Your task to perform on an android device: turn pop-ups on in chrome Image 0: 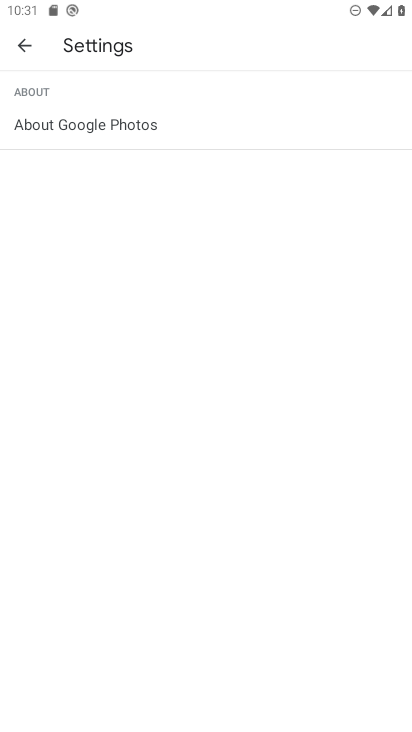
Step 0: press back button
Your task to perform on an android device: turn pop-ups on in chrome Image 1: 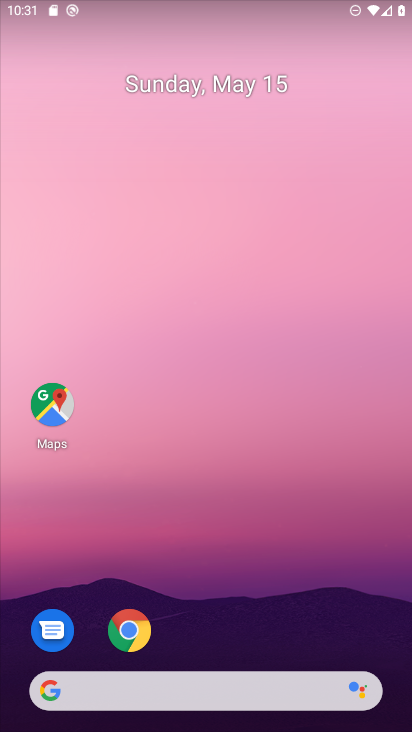
Step 1: click (137, 618)
Your task to perform on an android device: turn pop-ups on in chrome Image 2: 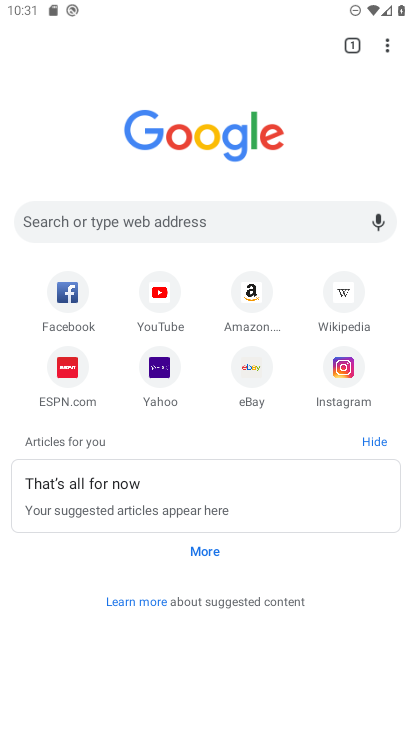
Step 2: drag from (385, 36) to (239, 378)
Your task to perform on an android device: turn pop-ups on in chrome Image 3: 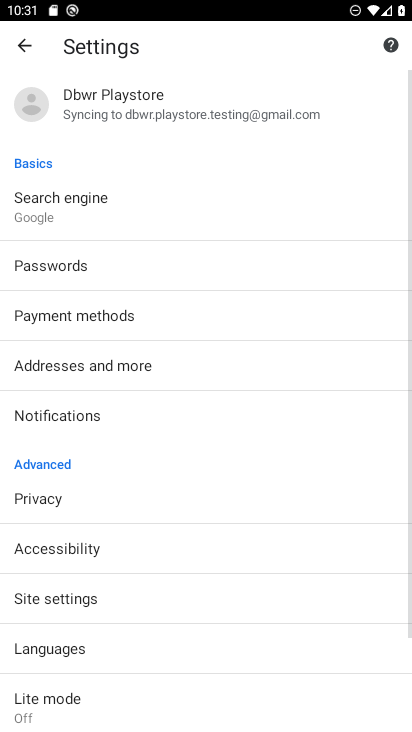
Step 3: click (42, 600)
Your task to perform on an android device: turn pop-ups on in chrome Image 4: 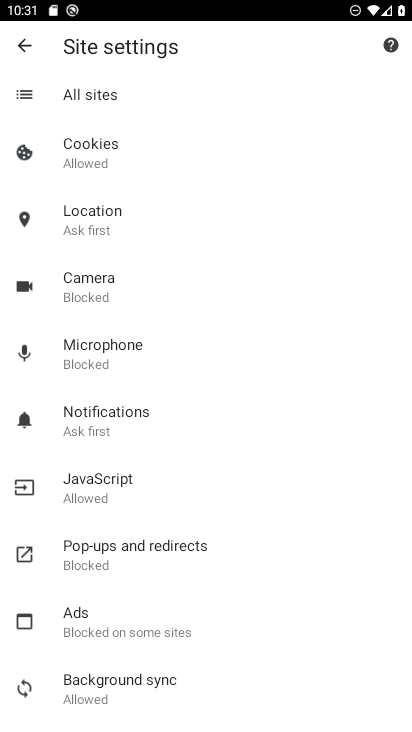
Step 4: click (113, 556)
Your task to perform on an android device: turn pop-ups on in chrome Image 5: 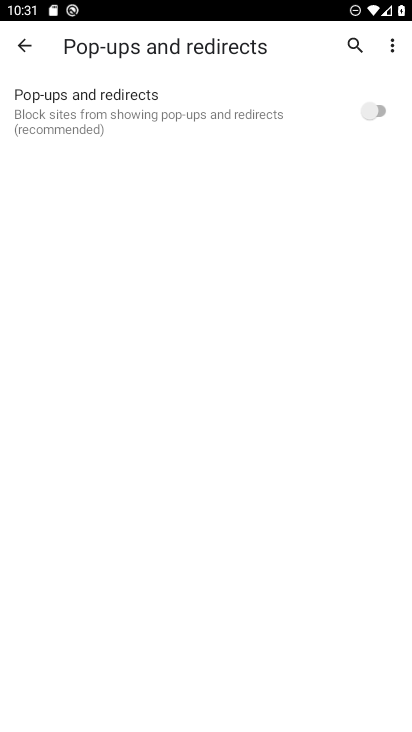
Step 5: click (368, 96)
Your task to perform on an android device: turn pop-ups on in chrome Image 6: 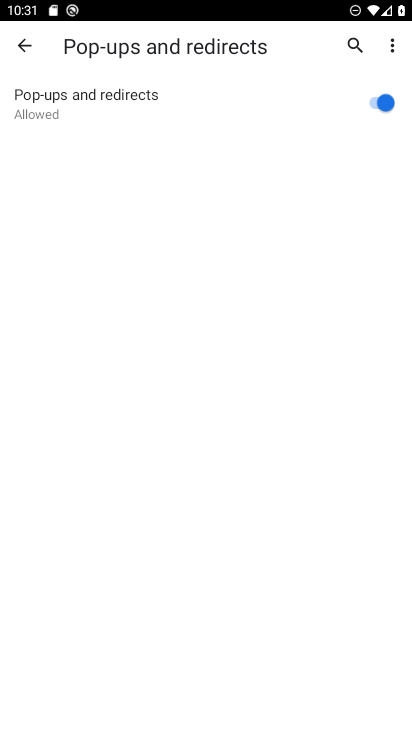
Step 6: task complete